Your task to perform on an android device: Open sound settings Image 0: 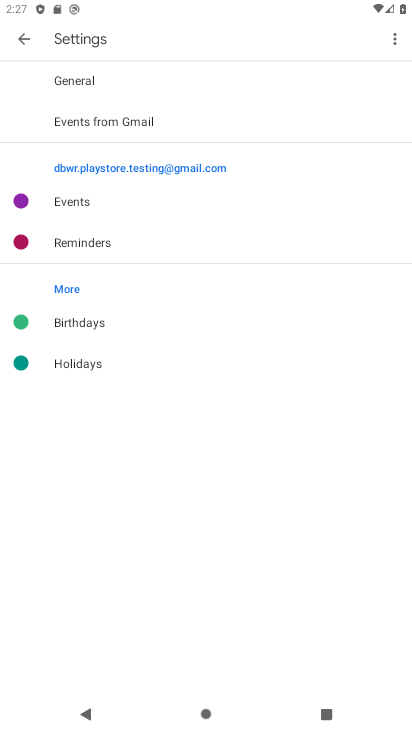
Step 0: press home button
Your task to perform on an android device: Open sound settings Image 1: 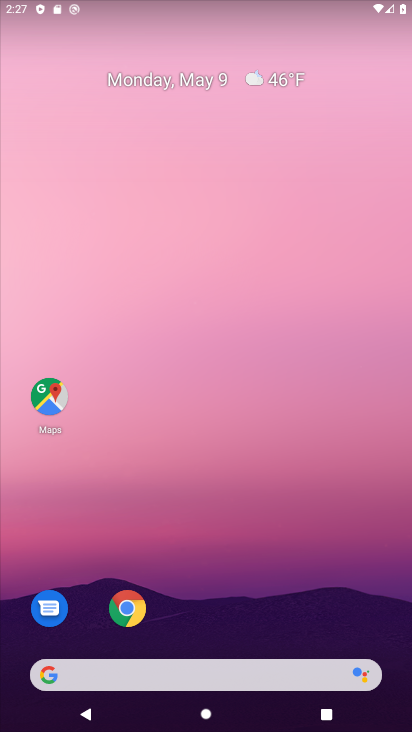
Step 1: drag from (182, 626) to (136, 313)
Your task to perform on an android device: Open sound settings Image 2: 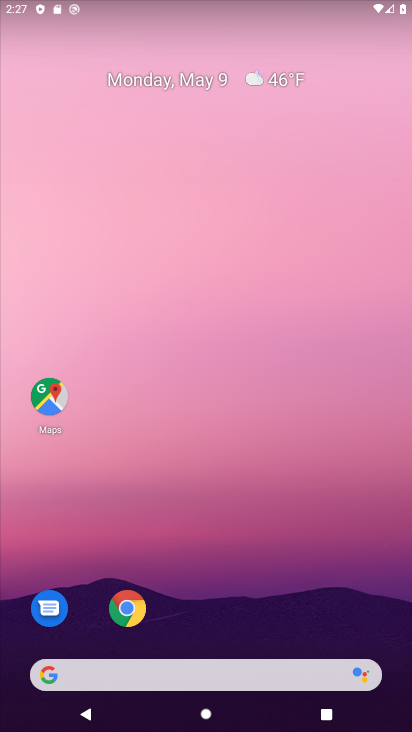
Step 2: drag from (246, 626) to (217, 193)
Your task to perform on an android device: Open sound settings Image 3: 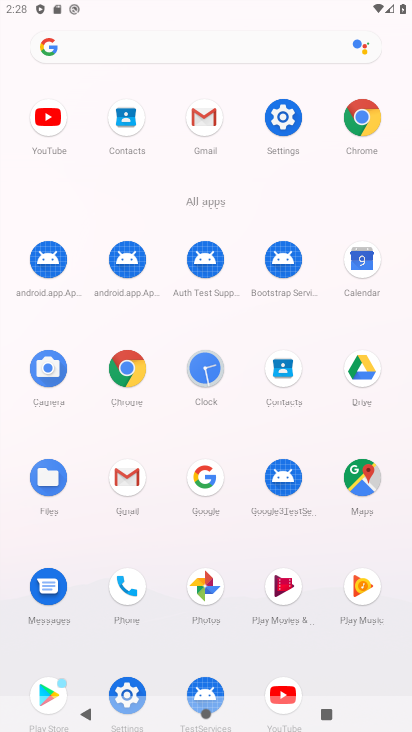
Step 3: click (282, 139)
Your task to perform on an android device: Open sound settings Image 4: 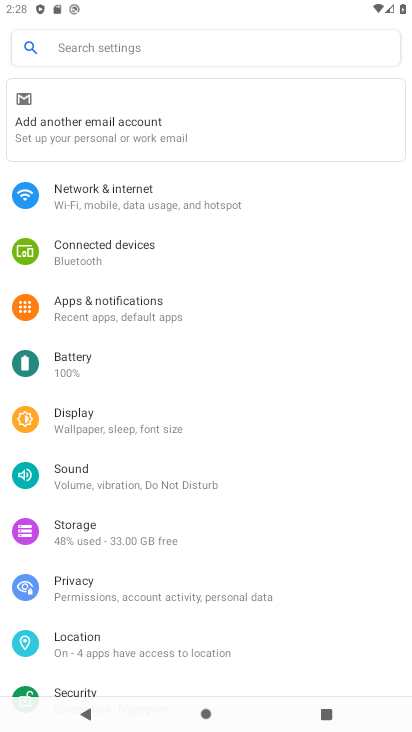
Step 4: click (111, 489)
Your task to perform on an android device: Open sound settings Image 5: 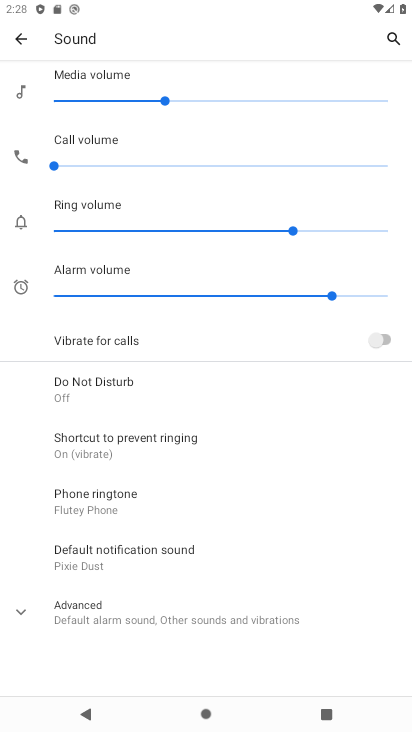
Step 5: task complete